Your task to perform on an android device: open chrome and create a bookmark for the current page Image 0: 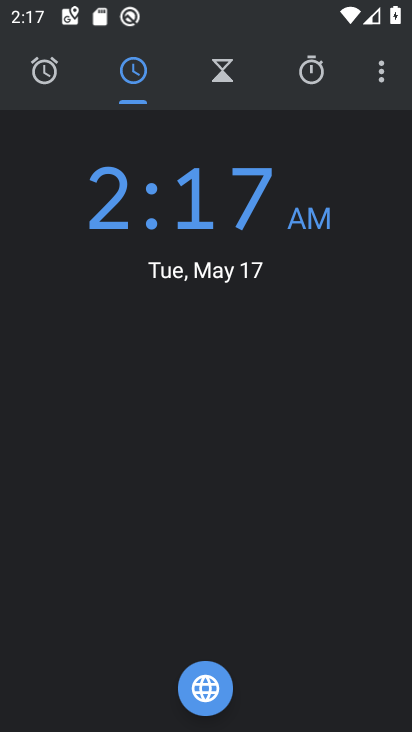
Step 0: press home button
Your task to perform on an android device: open chrome and create a bookmark for the current page Image 1: 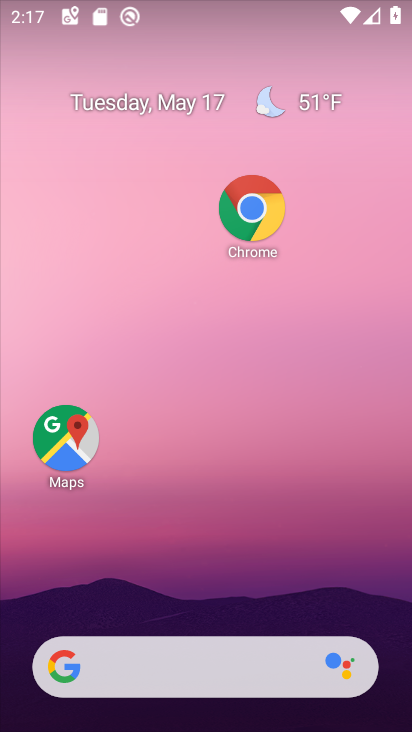
Step 1: click (235, 222)
Your task to perform on an android device: open chrome and create a bookmark for the current page Image 2: 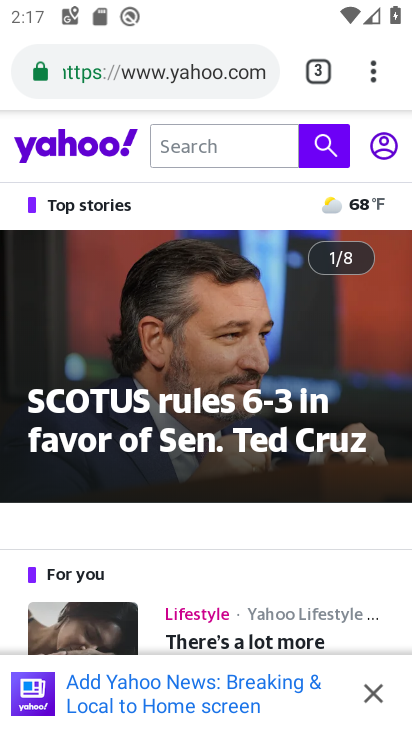
Step 2: task complete